Your task to perform on an android device: What's the weather going to be this weekend? Image 0: 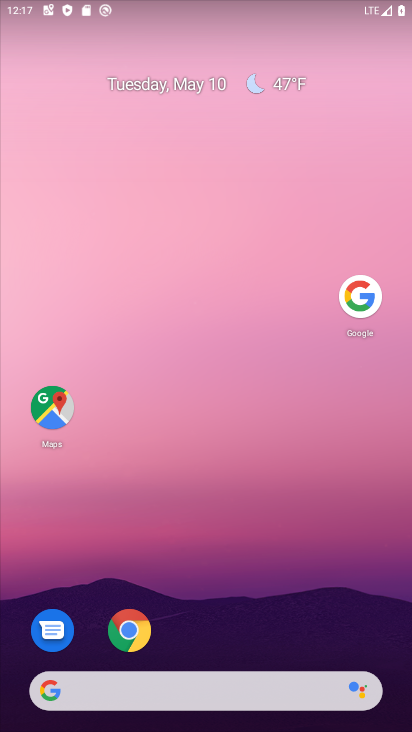
Step 0: press home button
Your task to perform on an android device: What's the weather going to be this weekend? Image 1: 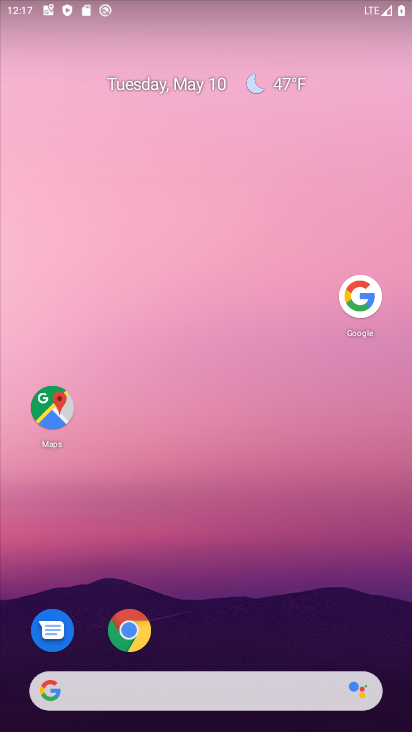
Step 1: click (280, 83)
Your task to perform on an android device: What's the weather going to be this weekend? Image 2: 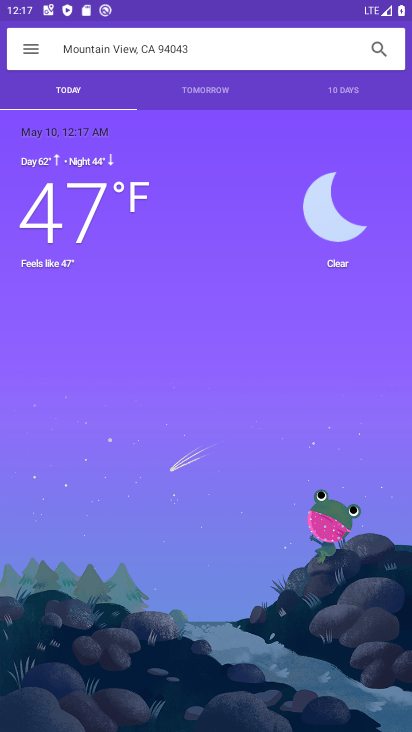
Step 2: click (336, 96)
Your task to perform on an android device: What's the weather going to be this weekend? Image 3: 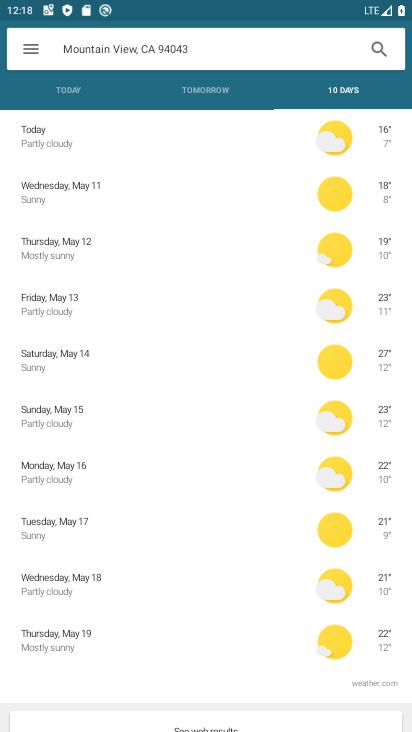
Step 3: click (73, 360)
Your task to perform on an android device: What's the weather going to be this weekend? Image 4: 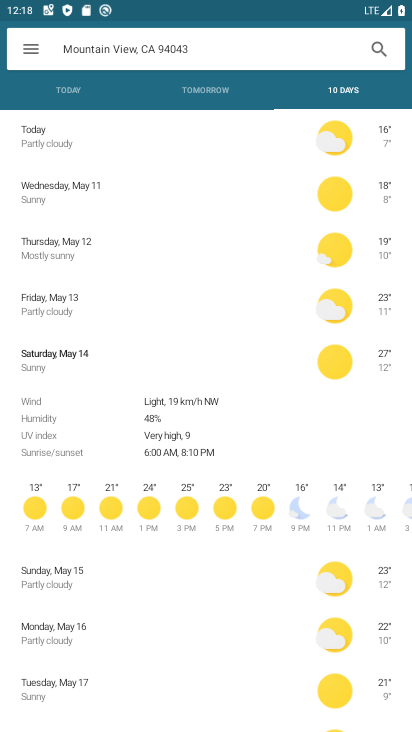
Step 4: task complete